Your task to perform on an android device: Play the last video I watched on Youtube Image 0: 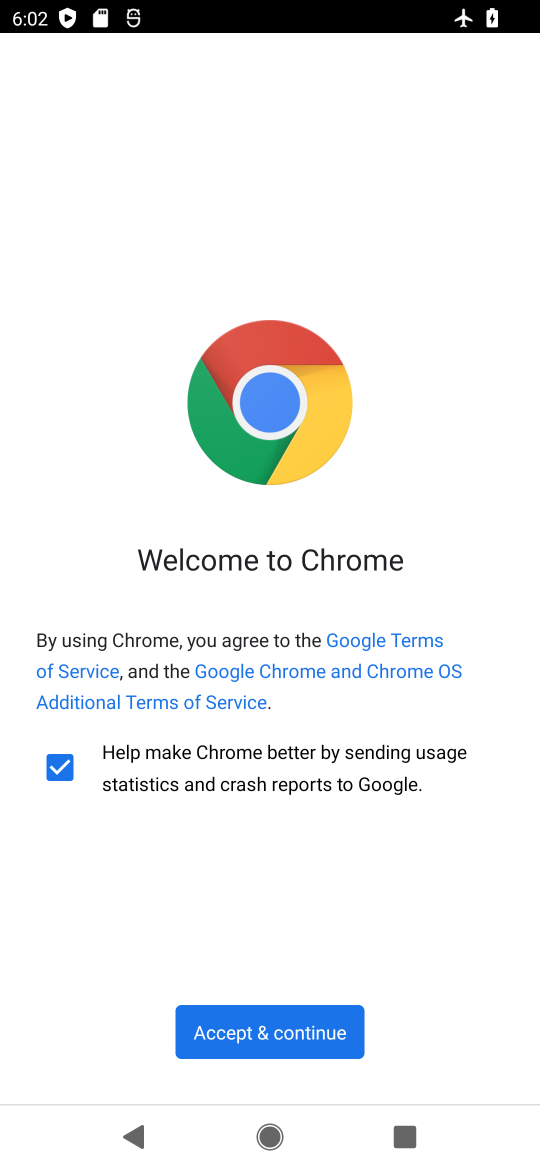
Step 0: press home button
Your task to perform on an android device: Play the last video I watched on Youtube Image 1: 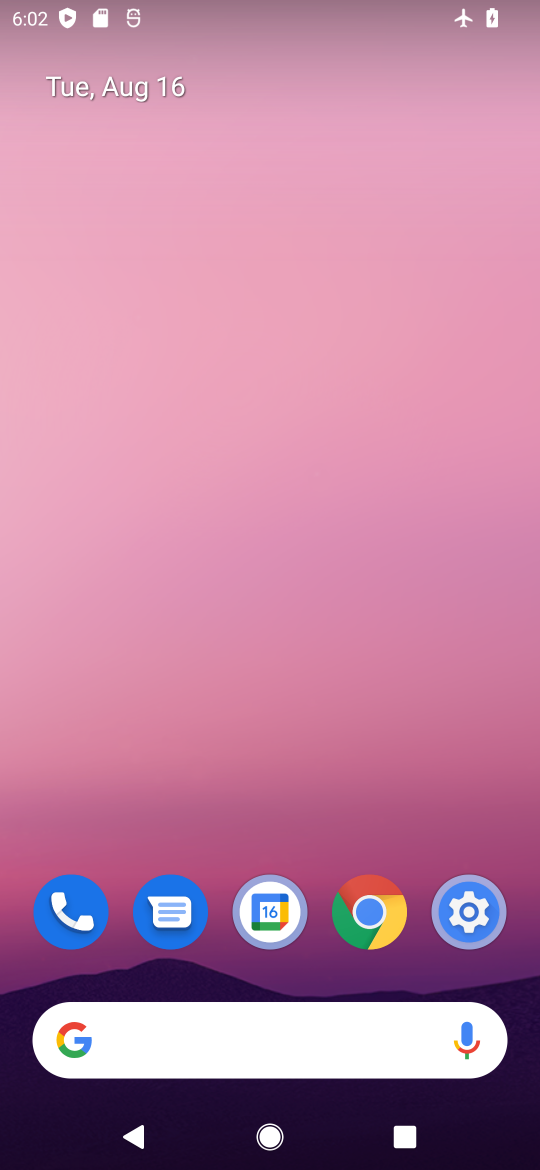
Step 1: drag from (423, 984) to (402, 146)
Your task to perform on an android device: Play the last video I watched on Youtube Image 2: 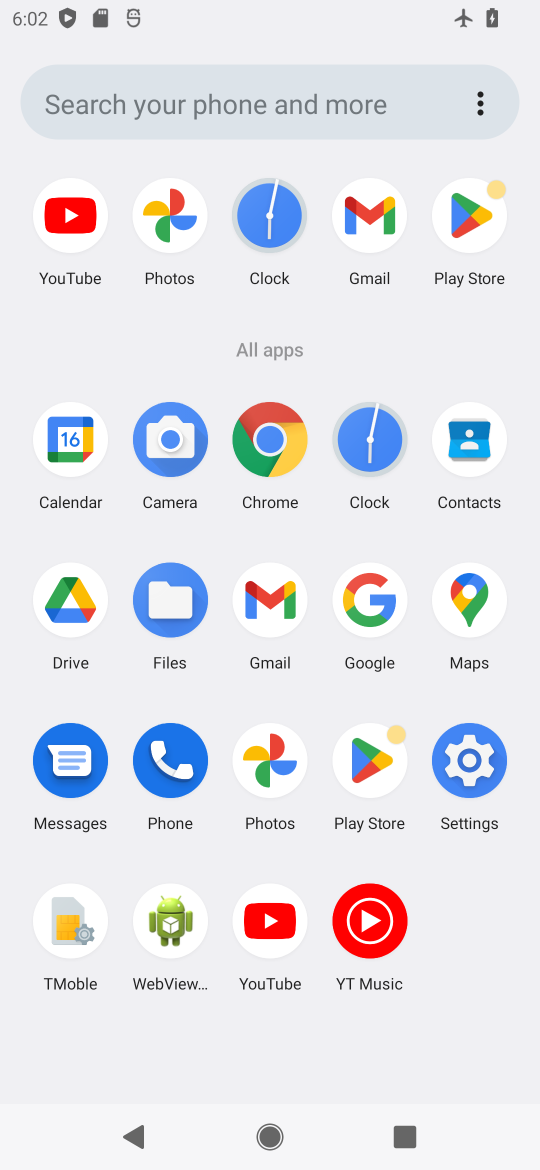
Step 2: click (268, 918)
Your task to perform on an android device: Play the last video I watched on Youtube Image 3: 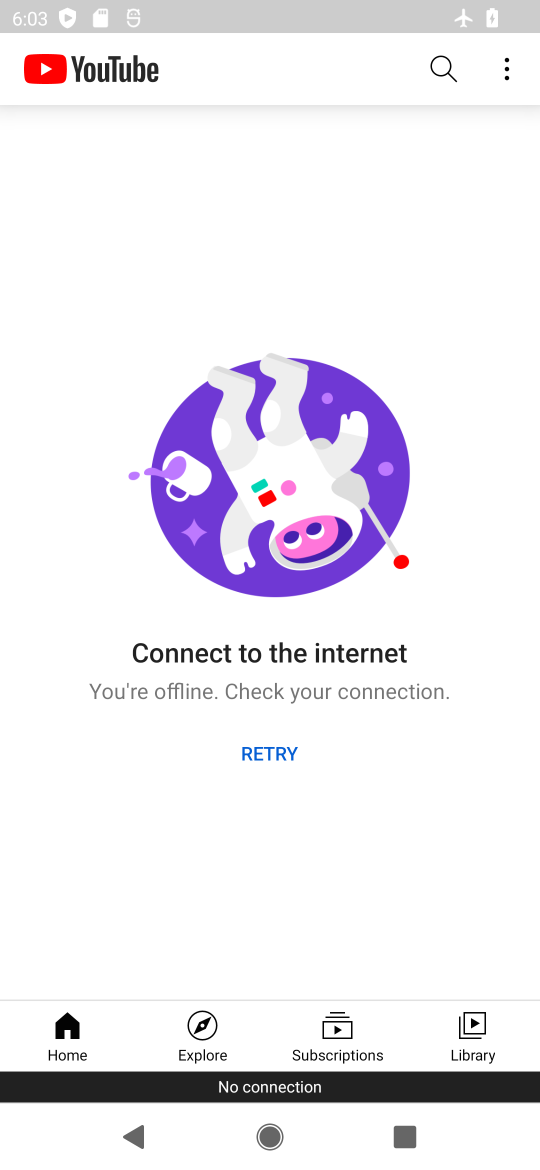
Step 3: click (487, 1040)
Your task to perform on an android device: Play the last video I watched on Youtube Image 4: 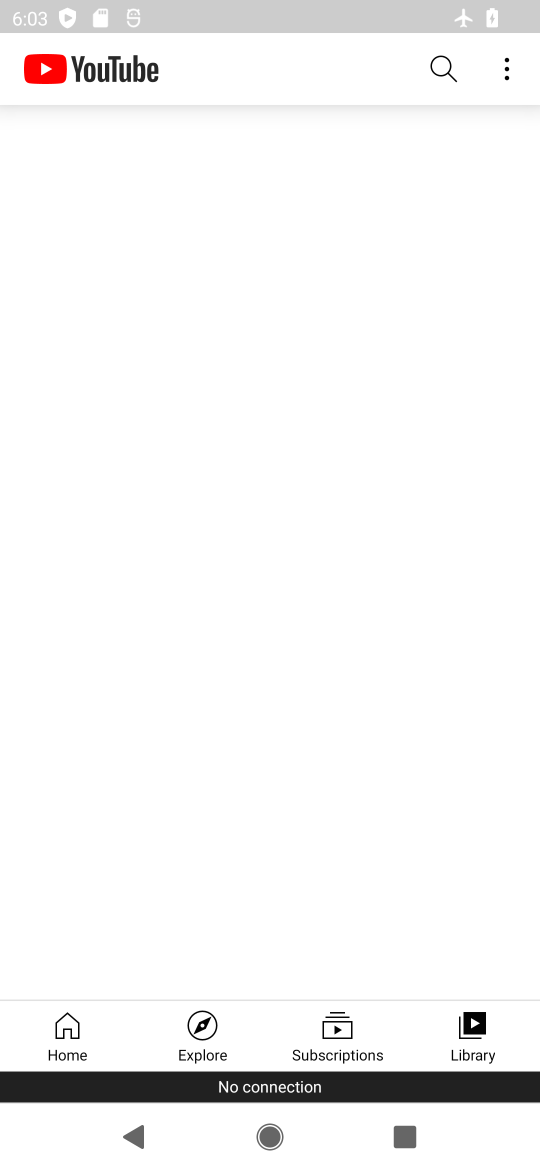
Step 4: task complete